Your task to perform on an android device: Play the last video I watched on Youtube Image 0: 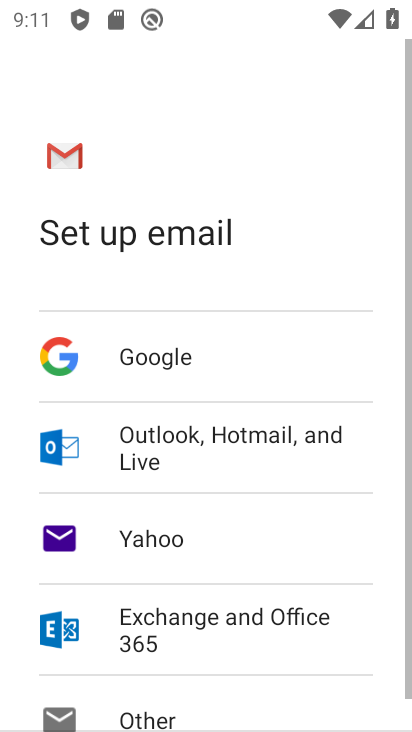
Step 0: press home button
Your task to perform on an android device: Play the last video I watched on Youtube Image 1: 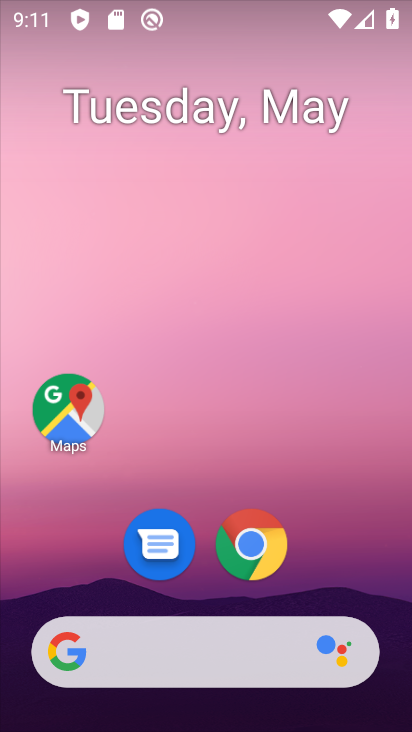
Step 1: drag from (328, 561) to (313, 211)
Your task to perform on an android device: Play the last video I watched on Youtube Image 2: 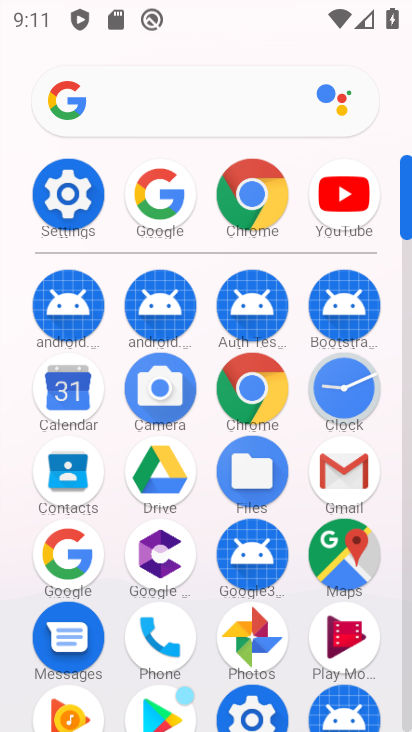
Step 2: click (356, 217)
Your task to perform on an android device: Play the last video I watched on Youtube Image 3: 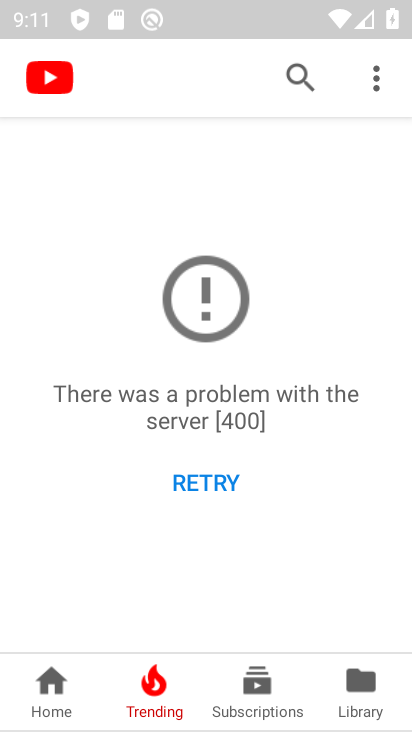
Step 3: click (366, 705)
Your task to perform on an android device: Play the last video I watched on Youtube Image 4: 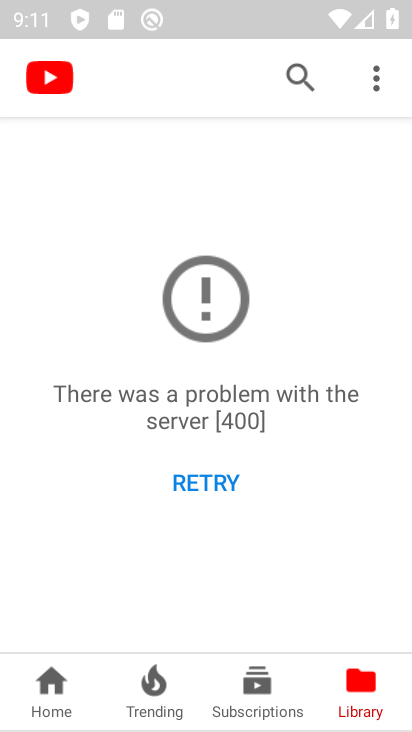
Step 4: task complete